Your task to perform on an android device: Open my contact list Image 0: 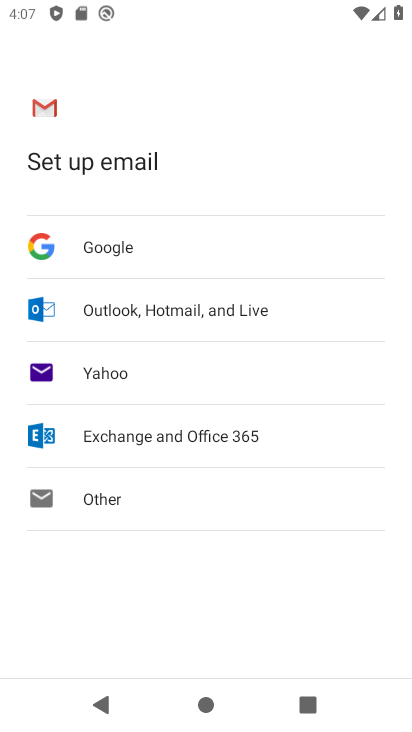
Step 0: press home button
Your task to perform on an android device: Open my contact list Image 1: 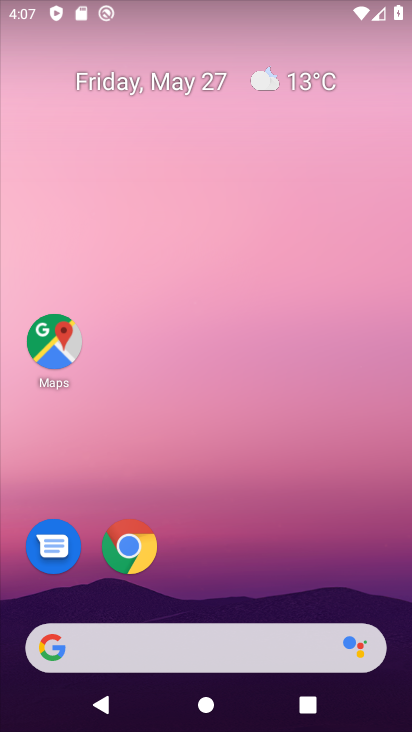
Step 1: drag from (194, 609) to (318, 154)
Your task to perform on an android device: Open my contact list Image 2: 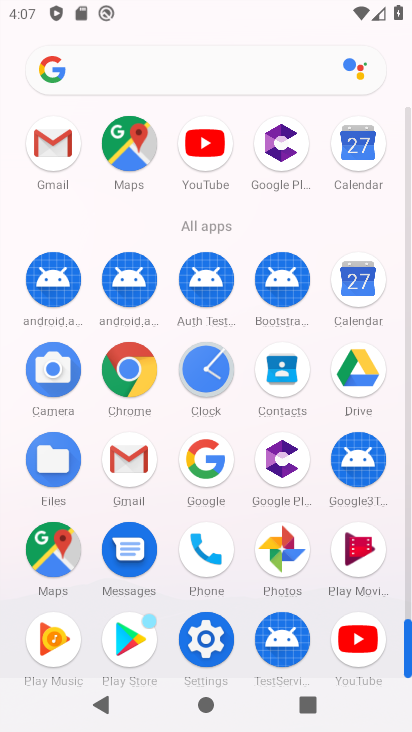
Step 2: click (279, 378)
Your task to perform on an android device: Open my contact list Image 3: 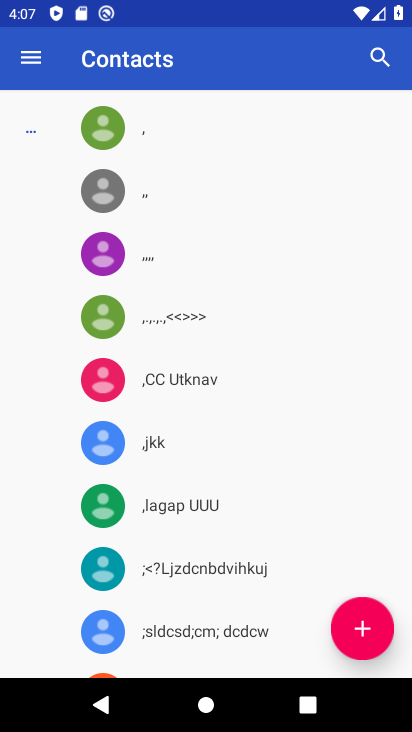
Step 3: task complete